Your task to perform on an android device: turn notification dots off Image 0: 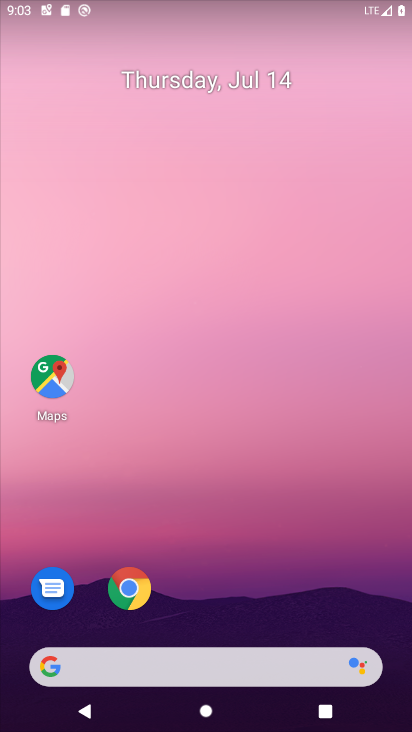
Step 0: drag from (275, 585) to (278, 32)
Your task to perform on an android device: turn notification dots off Image 1: 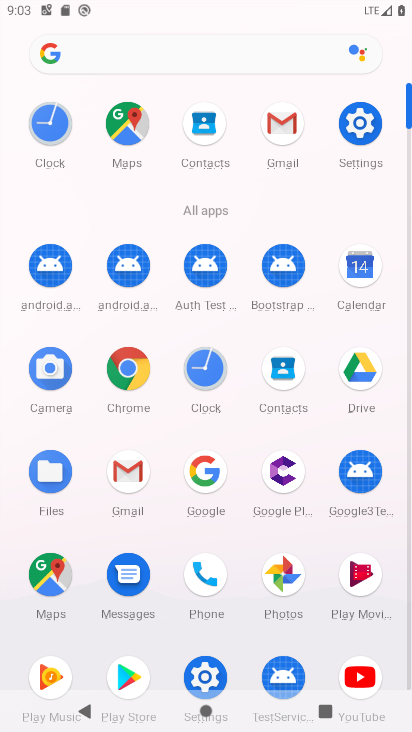
Step 1: click (212, 664)
Your task to perform on an android device: turn notification dots off Image 2: 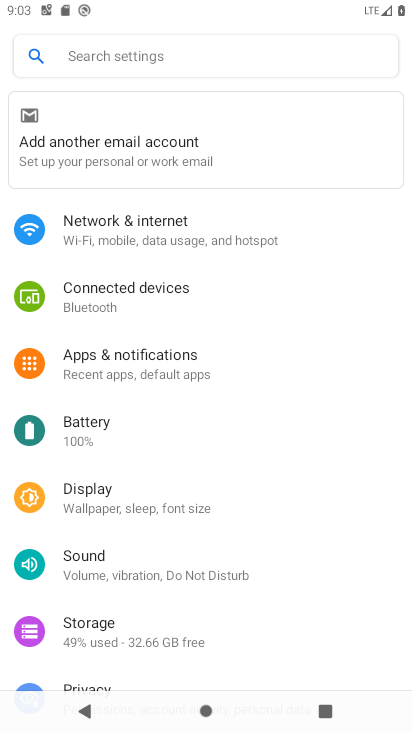
Step 2: click (148, 369)
Your task to perform on an android device: turn notification dots off Image 3: 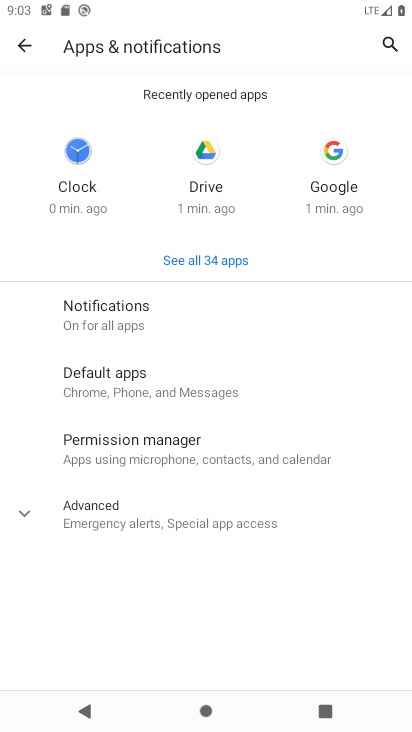
Step 3: click (111, 315)
Your task to perform on an android device: turn notification dots off Image 4: 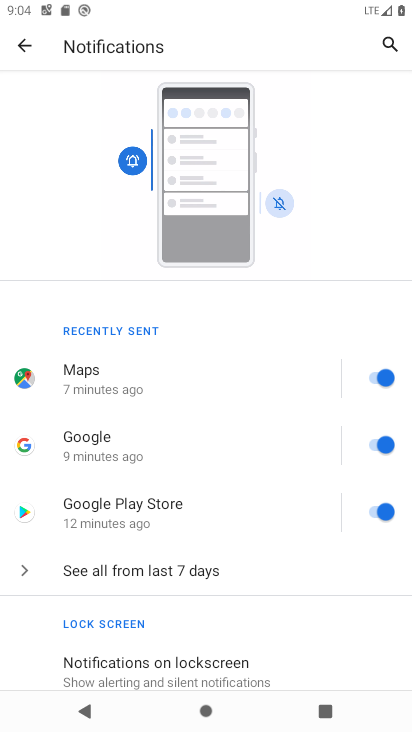
Step 4: drag from (261, 621) to (276, 251)
Your task to perform on an android device: turn notification dots off Image 5: 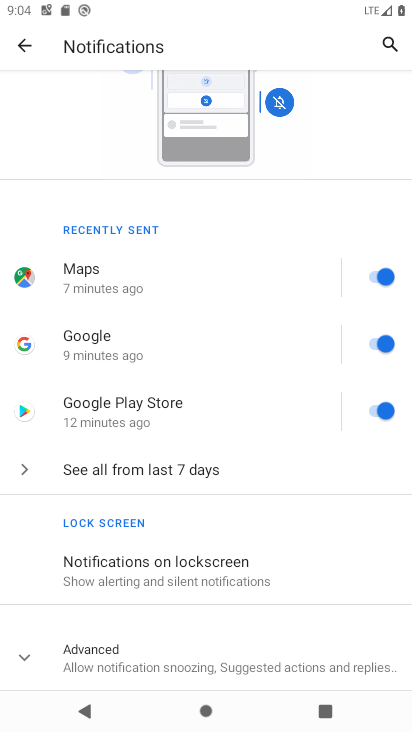
Step 5: click (96, 652)
Your task to perform on an android device: turn notification dots off Image 6: 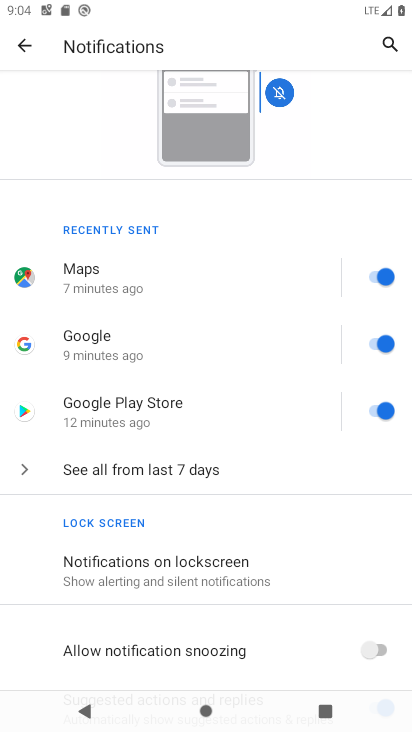
Step 6: drag from (307, 624) to (320, 159)
Your task to perform on an android device: turn notification dots off Image 7: 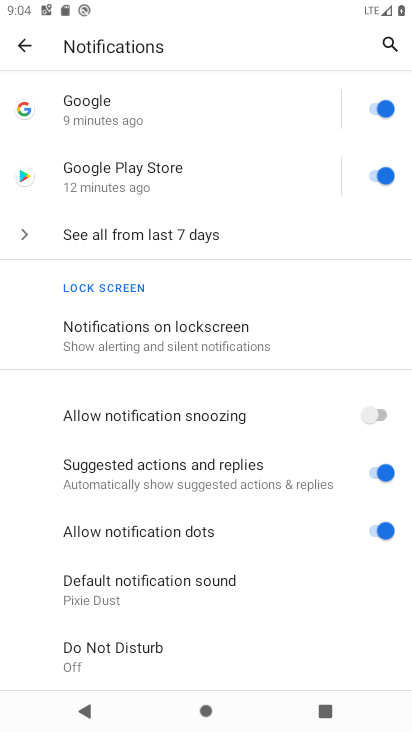
Step 7: click (386, 522)
Your task to perform on an android device: turn notification dots off Image 8: 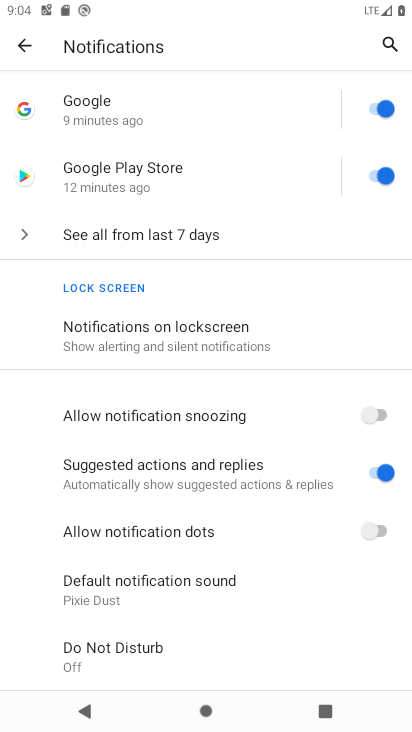
Step 8: task complete